Your task to perform on an android device: clear history in the chrome app Image 0: 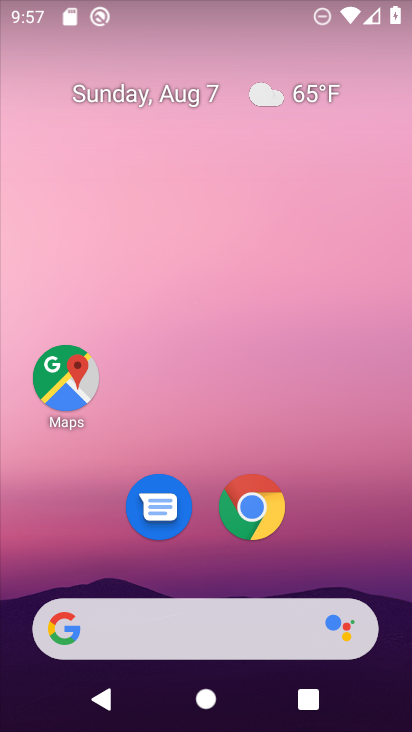
Step 0: drag from (346, 502) to (365, 0)
Your task to perform on an android device: clear history in the chrome app Image 1: 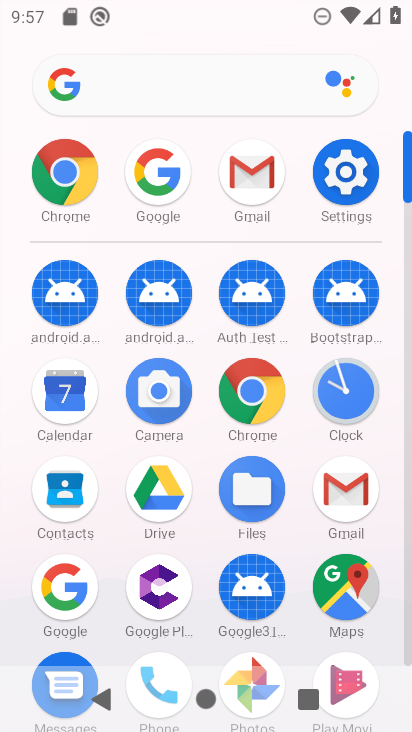
Step 1: click (251, 386)
Your task to perform on an android device: clear history in the chrome app Image 2: 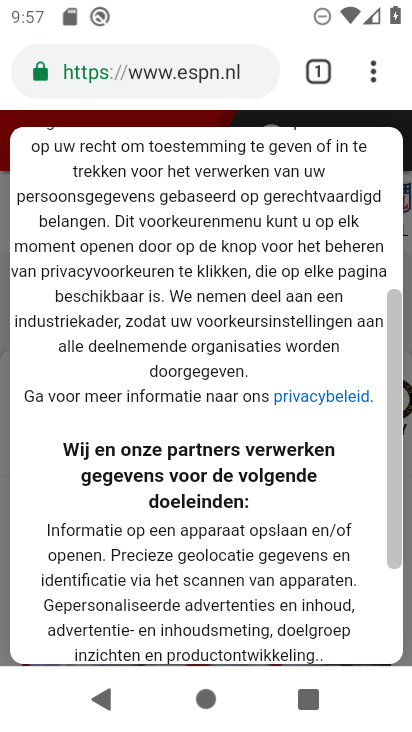
Step 2: click (378, 66)
Your task to perform on an android device: clear history in the chrome app Image 3: 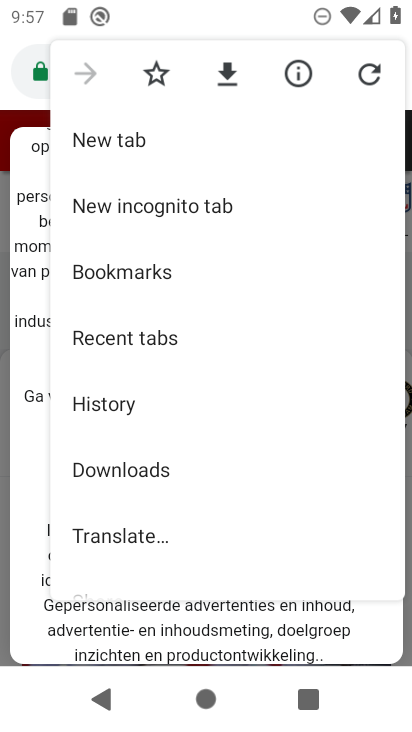
Step 3: click (119, 403)
Your task to perform on an android device: clear history in the chrome app Image 4: 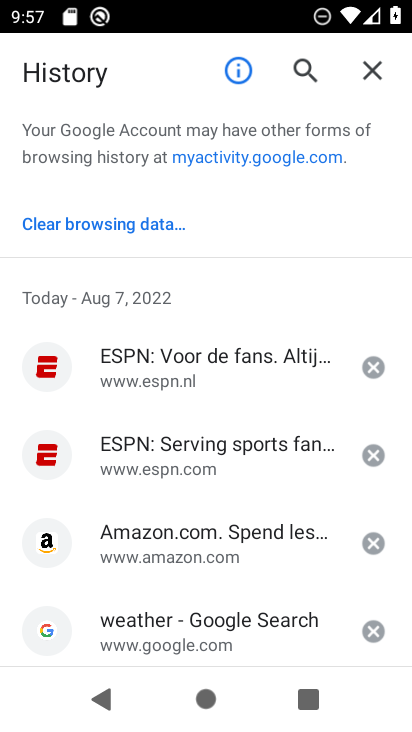
Step 4: click (152, 228)
Your task to perform on an android device: clear history in the chrome app Image 5: 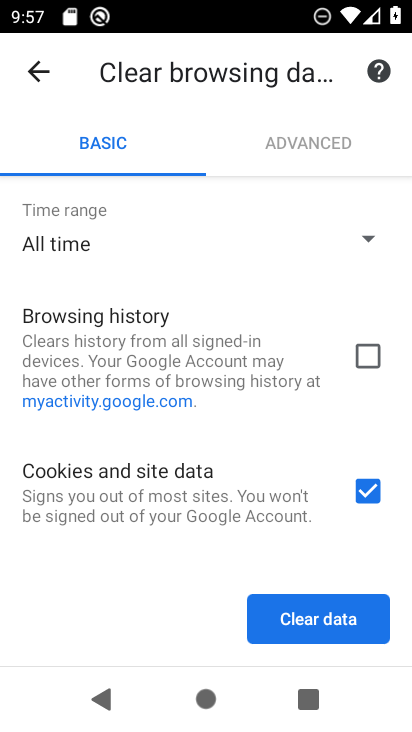
Step 5: click (377, 353)
Your task to perform on an android device: clear history in the chrome app Image 6: 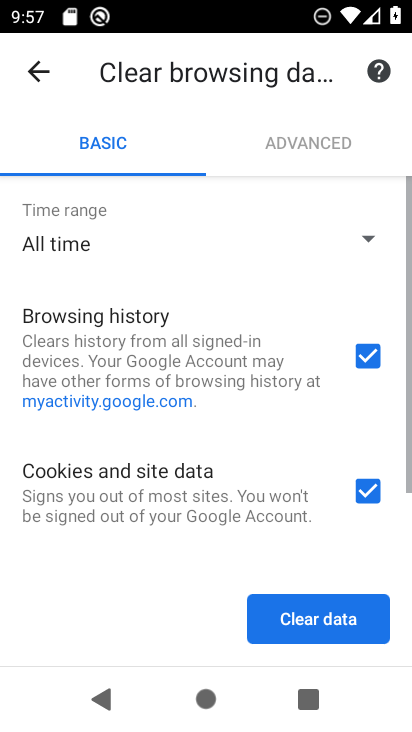
Step 6: click (317, 641)
Your task to perform on an android device: clear history in the chrome app Image 7: 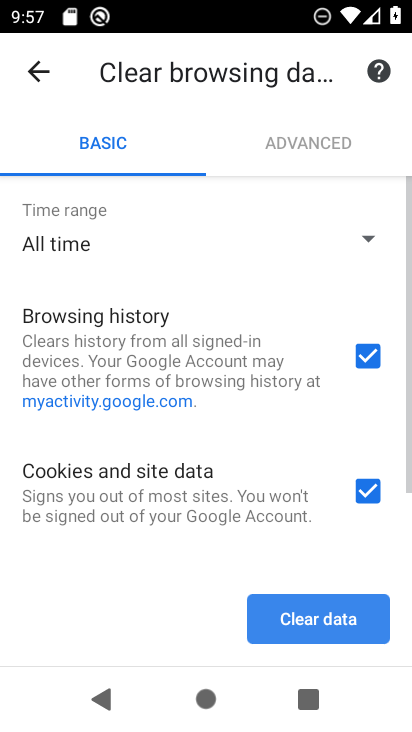
Step 7: click (318, 615)
Your task to perform on an android device: clear history in the chrome app Image 8: 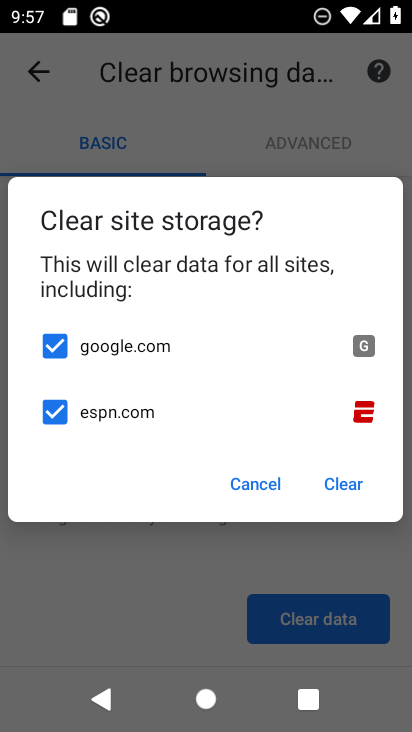
Step 8: click (352, 498)
Your task to perform on an android device: clear history in the chrome app Image 9: 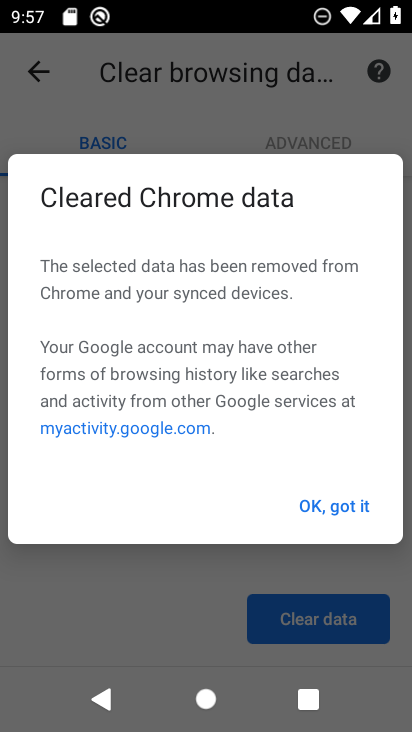
Step 9: click (356, 505)
Your task to perform on an android device: clear history in the chrome app Image 10: 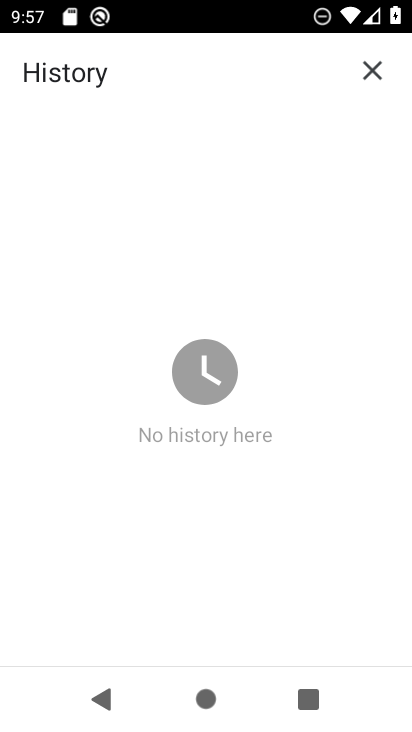
Step 10: task complete